Your task to perform on an android device: Search for seafood restaurants on Google Maps Image 0: 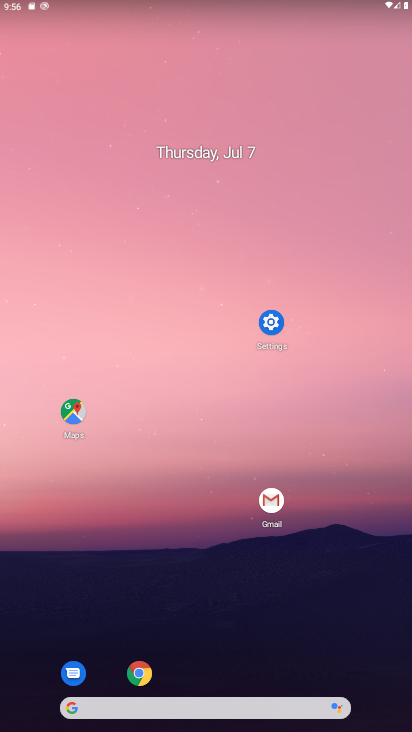
Step 0: click (74, 410)
Your task to perform on an android device: Search for seafood restaurants on Google Maps Image 1: 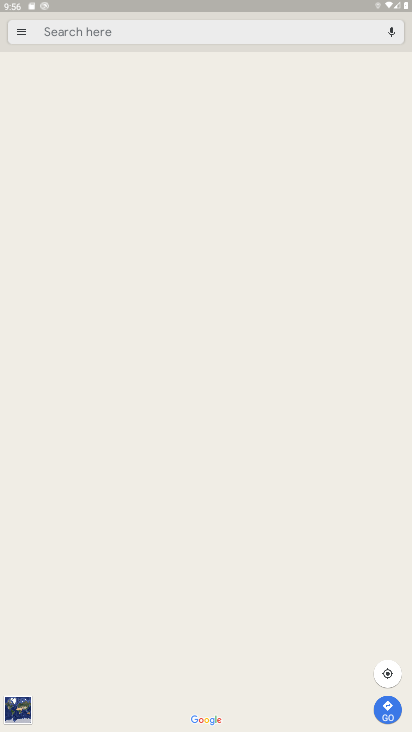
Step 1: click (115, 28)
Your task to perform on an android device: Search for seafood restaurants on Google Maps Image 2: 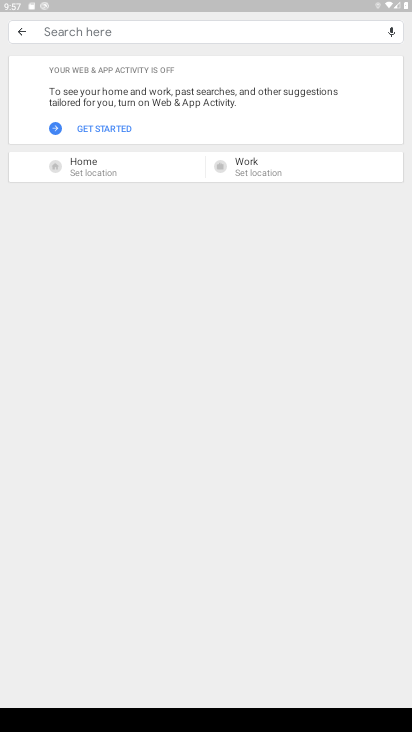
Step 2: type "seafood restaurants"
Your task to perform on an android device: Search for seafood restaurants on Google Maps Image 3: 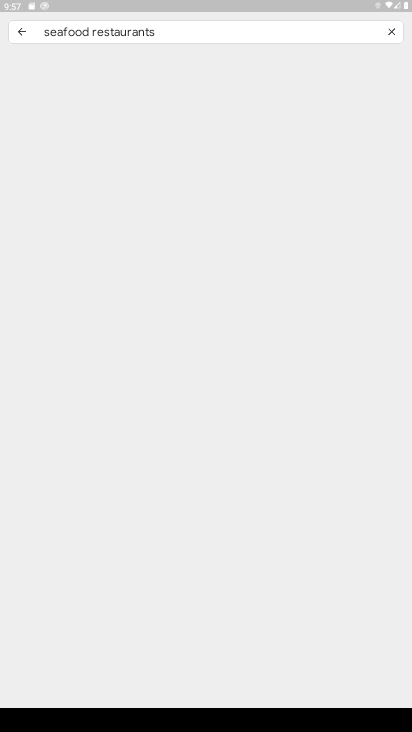
Step 3: task complete